Your task to perform on an android device: Open ESPN.com Image 0: 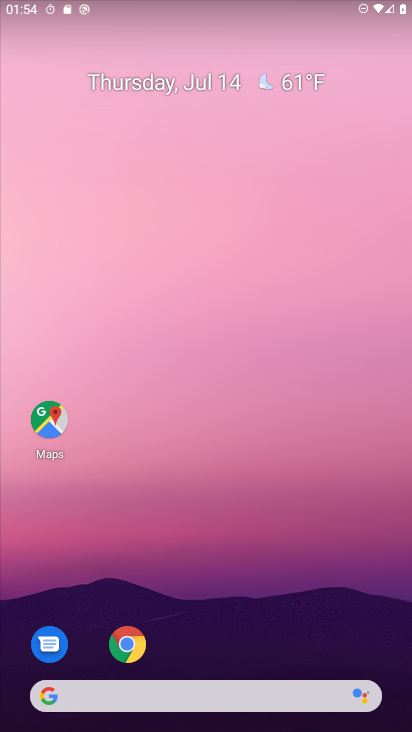
Step 0: drag from (274, 546) to (237, 2)
Your task to perform on an android device: Open ESPN.com Image 1: 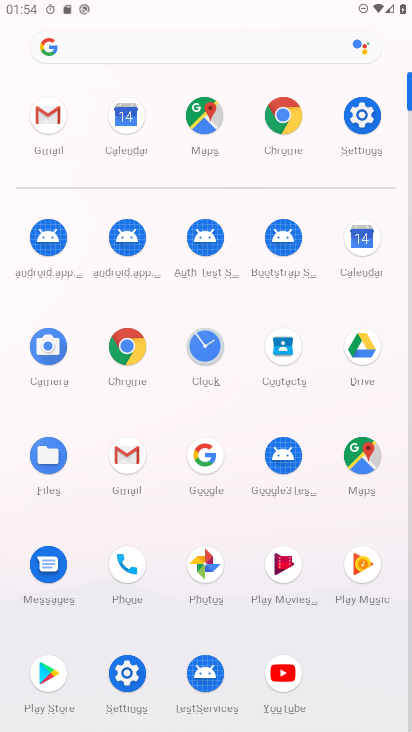
Step 1: click (282, 116)
Your task to perform on an android device: Open ESPN.com Image 2: 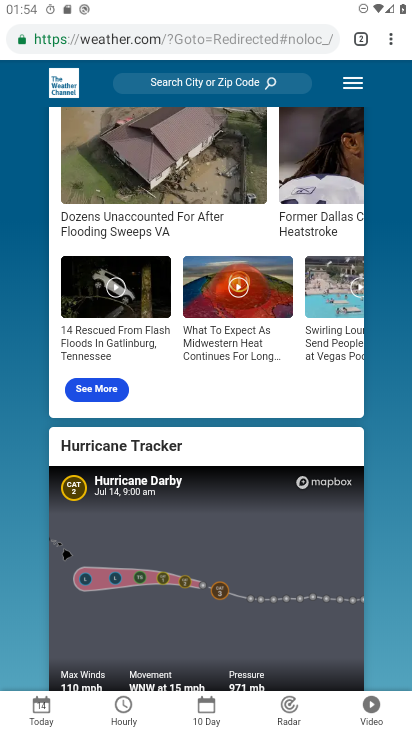
Step 2: click (175, 35)
Your task to perform on an android device: Open ESPN.com Image 3: 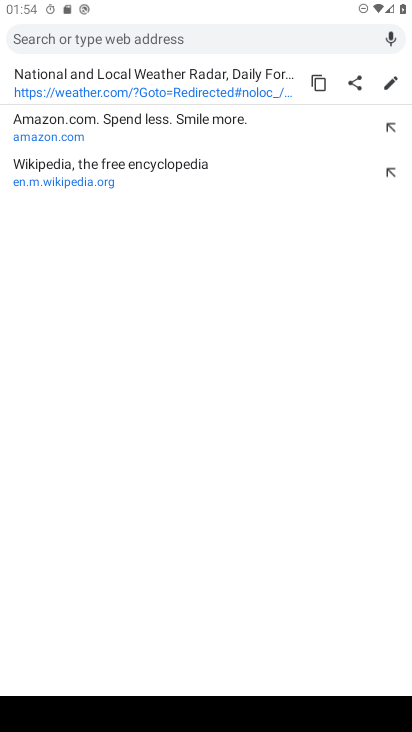
Step 3: type "espn.com"
Your task to perform on an android device: Open ESPN.com Image 4: 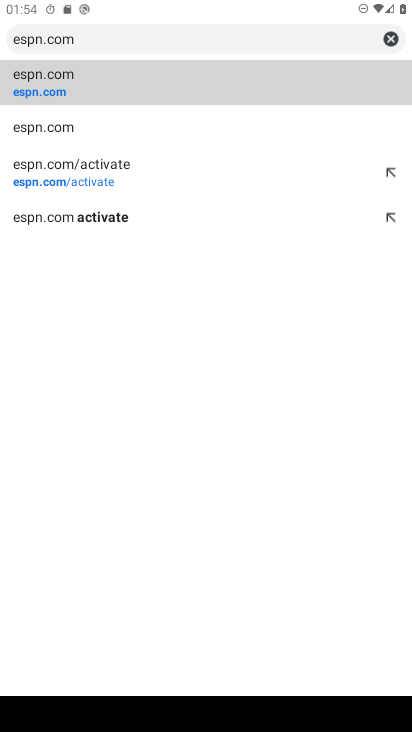
Step 4: click (26, 81)
Your task to perform on an android device: Open ESPN.com Image 5: 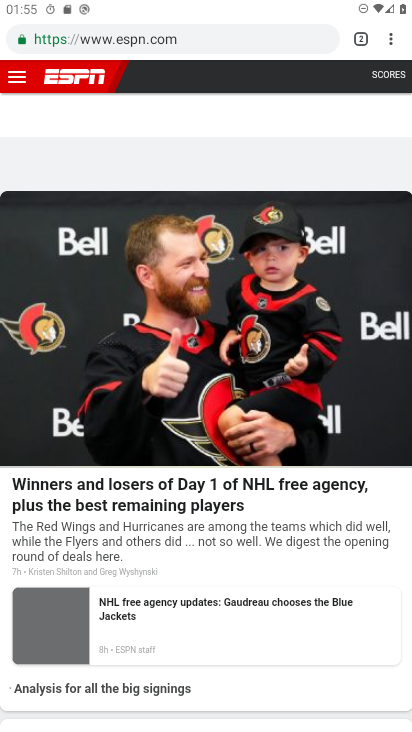
Step 5: task complete